Your task to perform on an android device: What's the weather going to be tomorrow? Image 0: 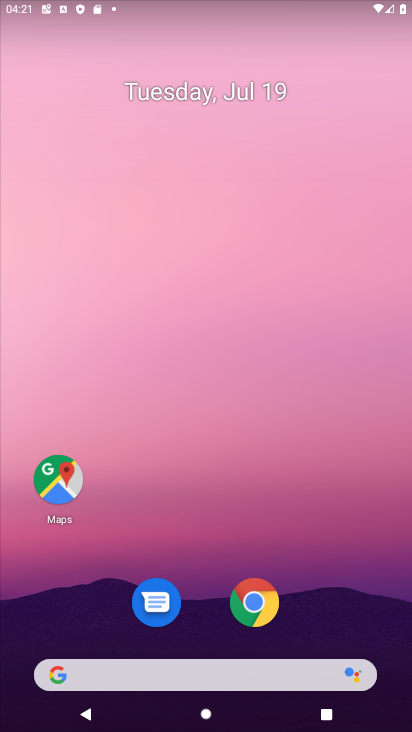
Step 0: click (246, 668)
Your task to perform on an android device: What's the weather going to be tomorrow? Image 1: 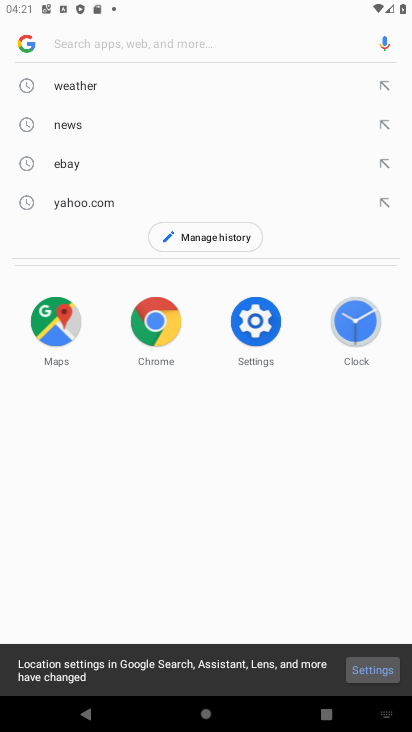
Step 1: click (246, 668)
Your task to perform on an android device: What's the weather going to be tomorrow? Image 2: 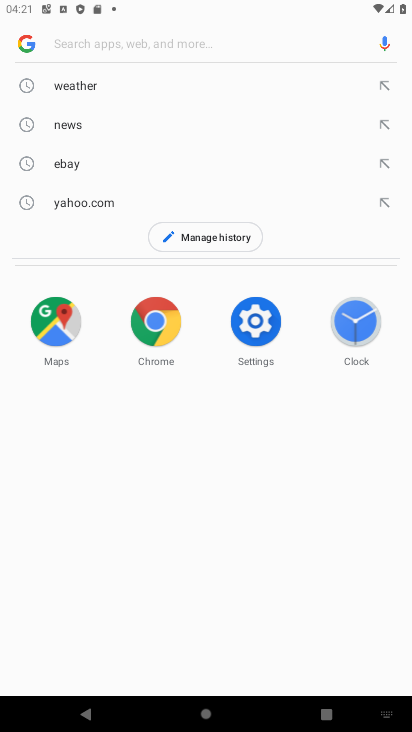
Step 2: click (110, 96)
Your task to perform on an android device: What's the weather going to be tomorrow? Image 3: 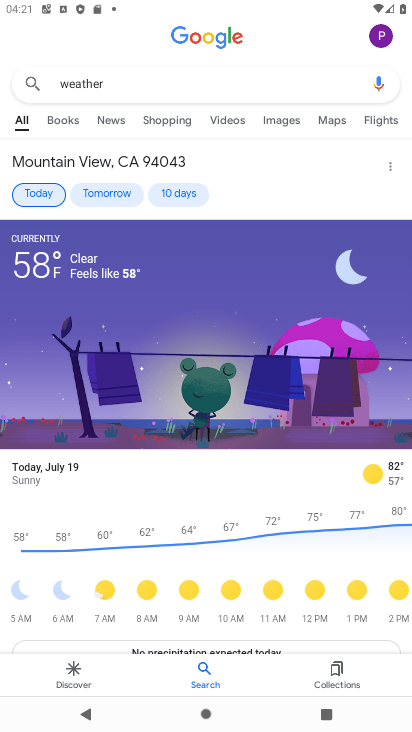
Step 3: task complete